Your task to perform on an android device: Go to display settings Image 0: 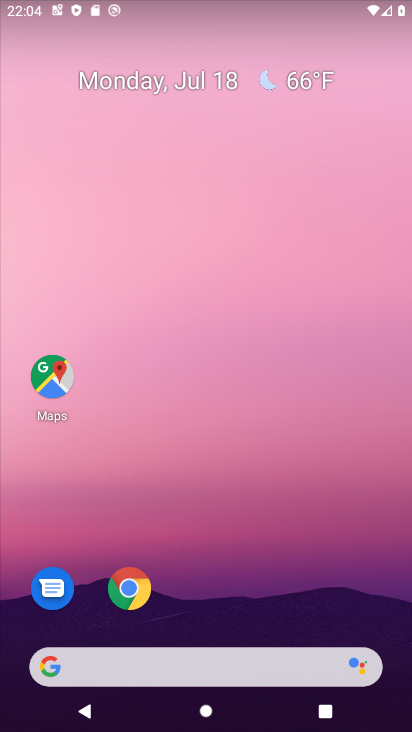
Step 0: drag from (171, 672) to (295, 30)
Your task to perform on an android device: Go to display settings Image 1: 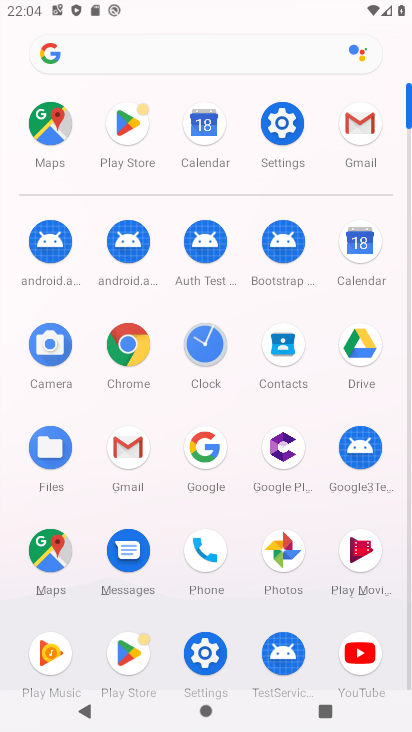
Step 1: click (288, 121)
Your task to perform on an android device: Go to display settings Image 2: 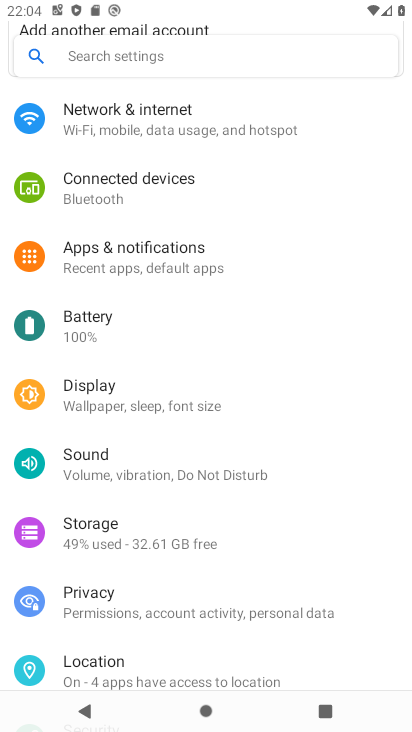
Step 2: click (88, 389)
Your task to perform on an android device: Go to display settings Image 3: 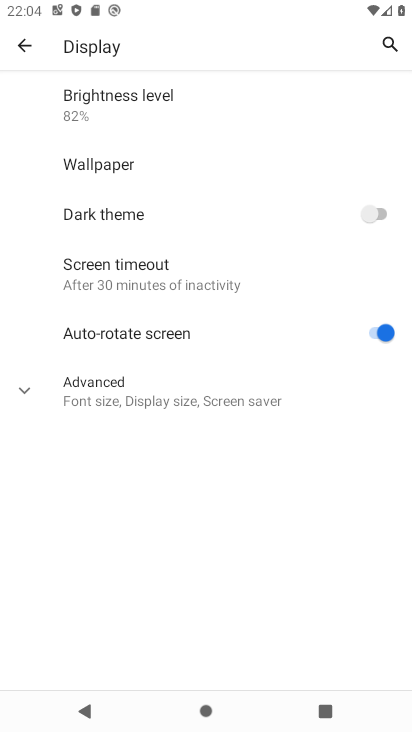
Step 3: task complete